Your task to perform on an android device: Open wifi settings Image 0: 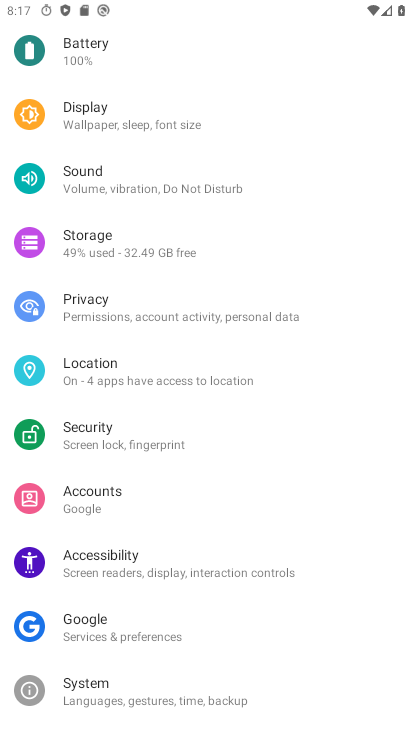
Step 0: drag from (199, 634) to (260, 4)
Your task to perform on an android device: Open wifi settings Image 1: 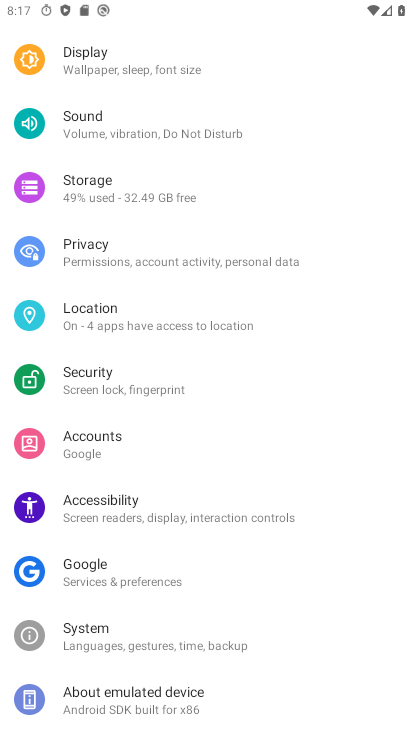
Step 1: press home button
Your task to perform on an android device: Open wifi settings Image 2: 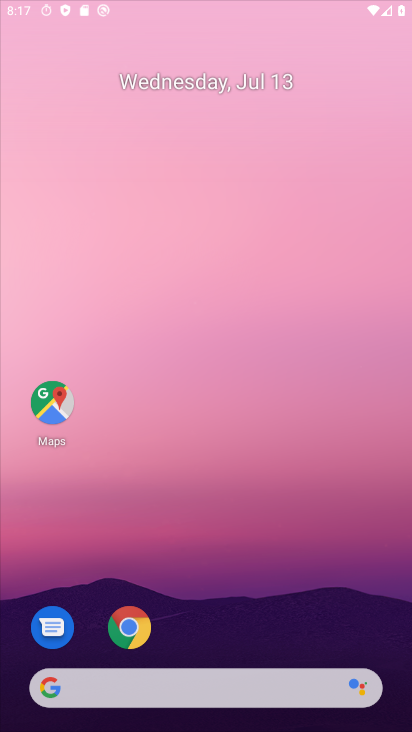
Step 2: drag from (224, 639) to (254, 27)
Your task to perform on an android device: Open wifi settings Image 3: 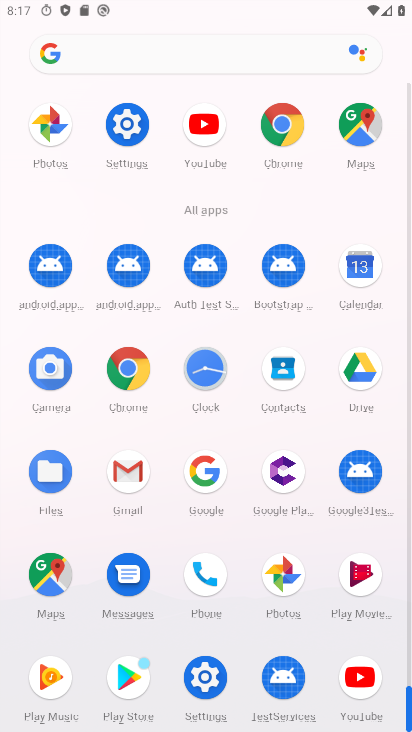
Step 3: click (207, 672)
Your task to perform on an android device: Open wifi settings Image 4: 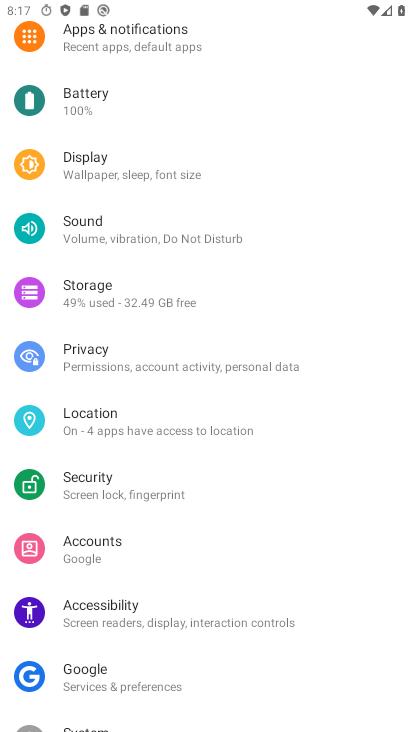
Step 4: drag from (221, 518) to (244, 248)
Your task to perform on an android device: Open wifi settings Image 5: 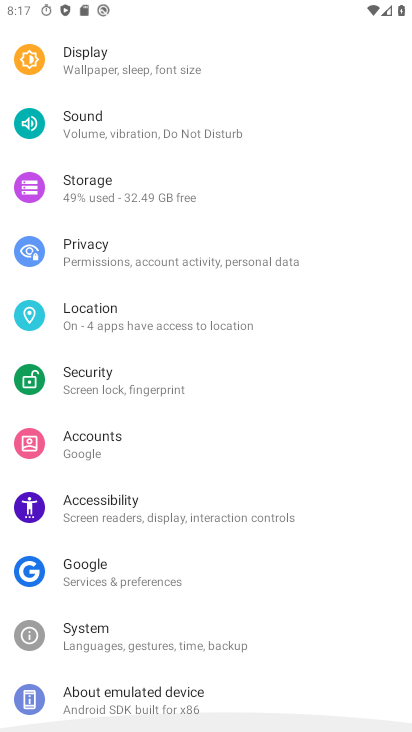
Step 5: drag from (224, 169) to (208, 720)
Your task to perform on an android device: Open wifi settings Image 6: 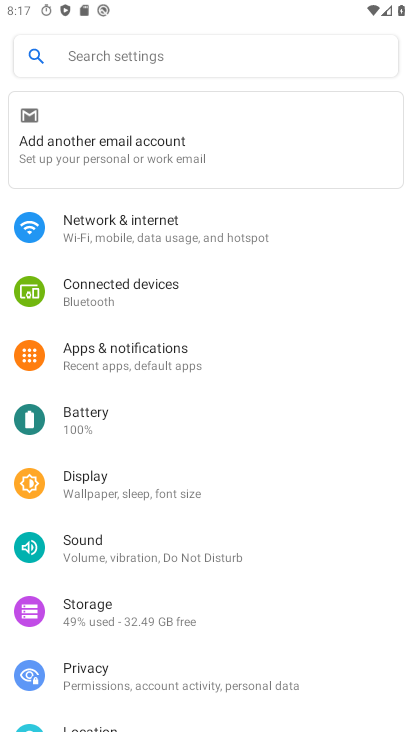
Step 6: drag from (224, 230) to (251, 725)
Your task to perform on an android device: Open wifi settings Image 7: 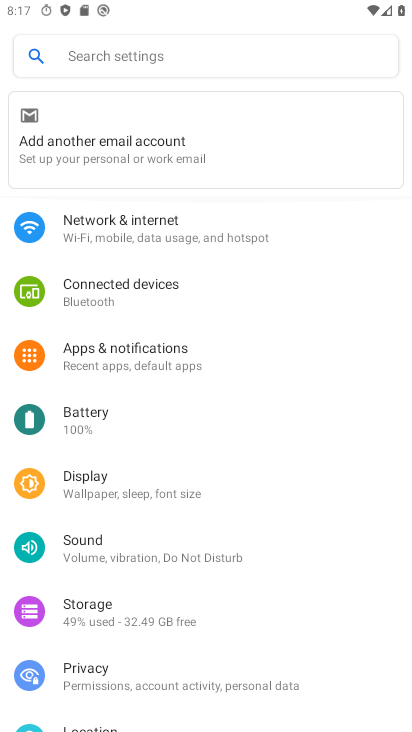
Step 7: drag from (208, 497) to (270, 85)
Your task to perform on an android device: Open wifi settings Image 8: 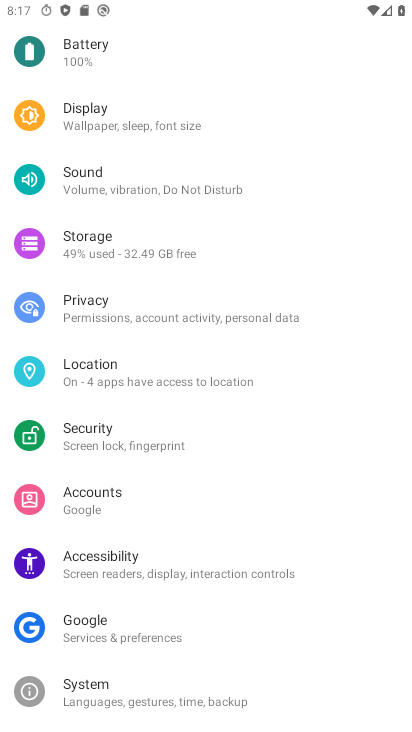
Step 8: drag from (182, 634) to (208, 116)
Your task to perform on an android device: Open wifi settings Image 9: 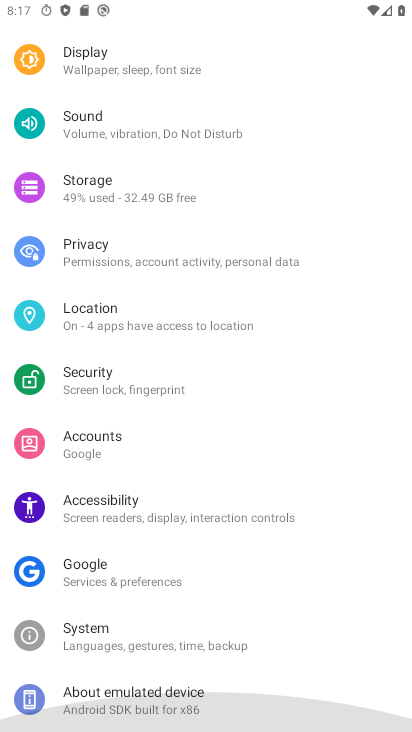
Step 9: drag from (215, 96) to (250, 708)
Your task to perform on an android device: Open wifi settings Image 10: 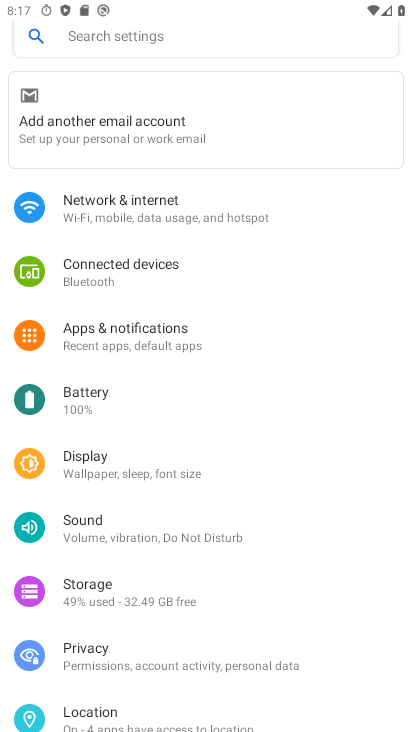
Step 10: click (114, 214)
Your task to perform on an android device: Open wifi settings Image 11: 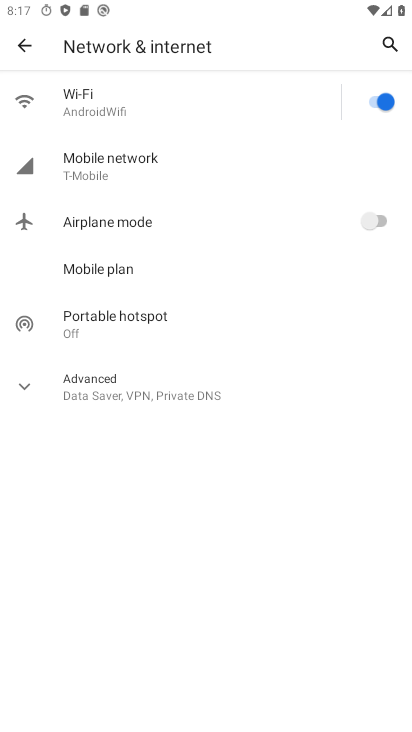
Step 11: click (132, 109)
Your task to perform on an android device: Open wifi settings Image 12: 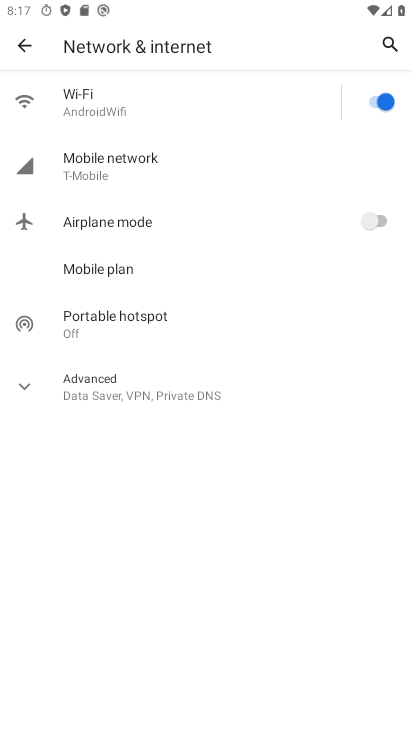
Step 12: click (132, 109)
Your task to perform on an android device: Open wifi settings Image 13: 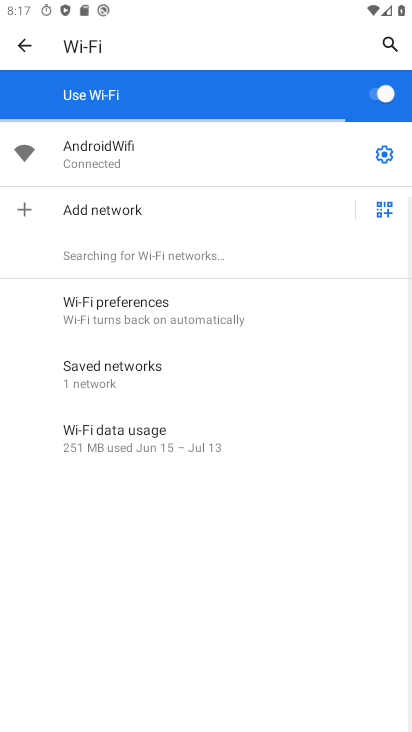
Step 13: drag from (184, 547) to (198, 207)
Your task to perform on an android device: Open wifi settings Image 14: 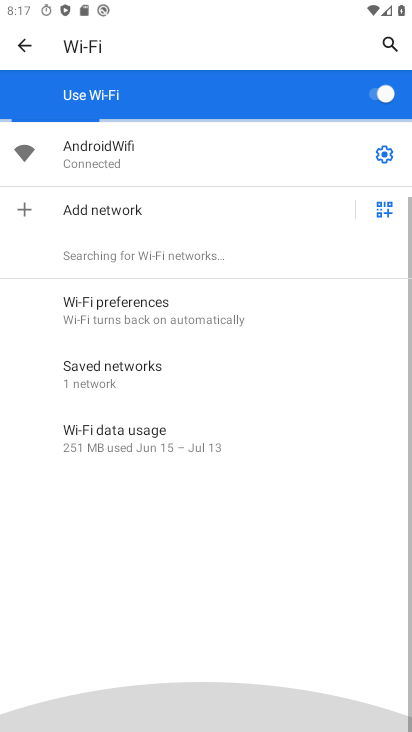
Step 14: drag from (187, 192) to (164, 500)
Your task to perform on an android device: Open wifi settings Image 15: 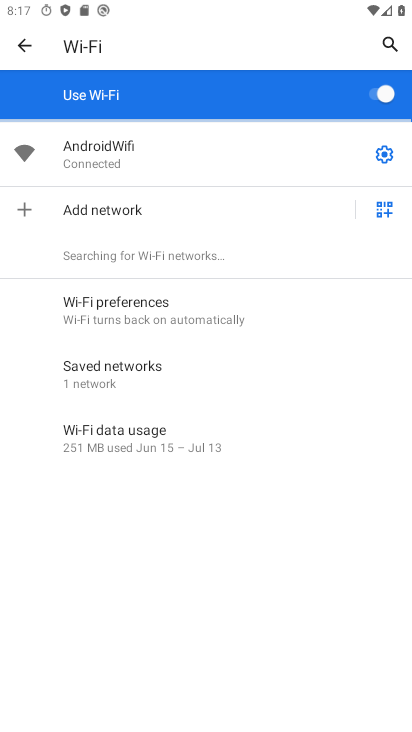
Step 15: click (384, 151)
Your task to perform on an android device: Open wifi settings Image 16: 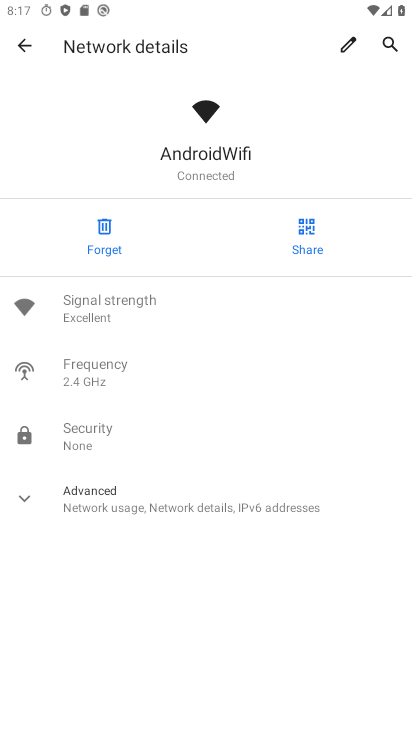
Step 16: task complete